Your task to perform on an android device: Go to sound settings Image 0: 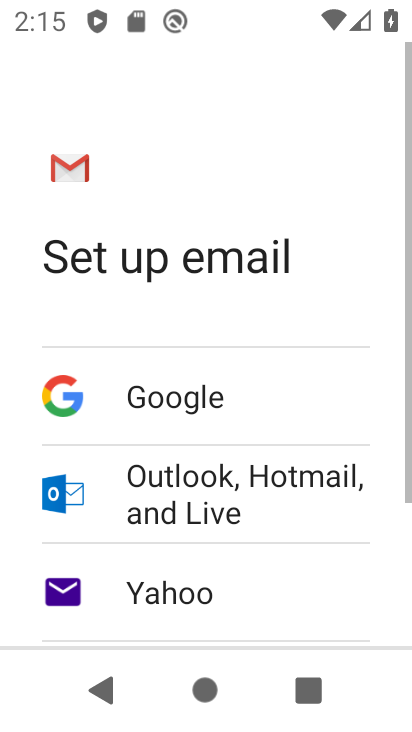
Step 0: press home button
Your task to perform on an android device: Go to sound settings Image 1: 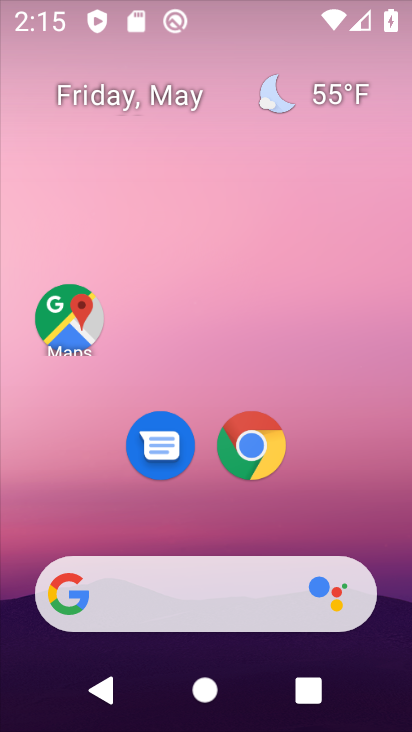
Step 1: drag from (374, 518) to (325, 134)
Your task to perform on an android device: Go to sound settings Image 2: 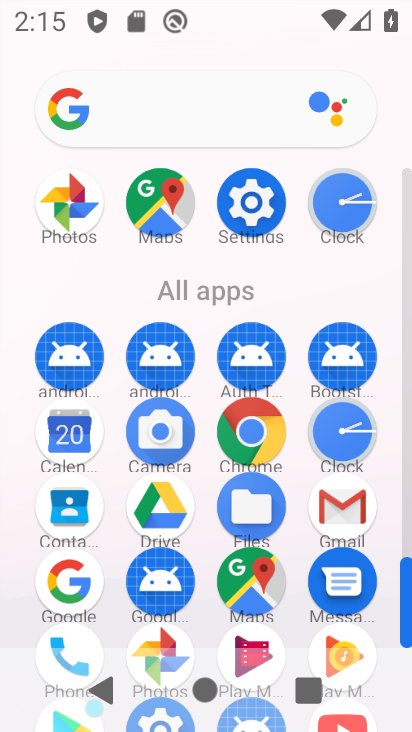
Step 2: click (244, 202)
Your task to perform on an android device: Go to sound settings Image 3: 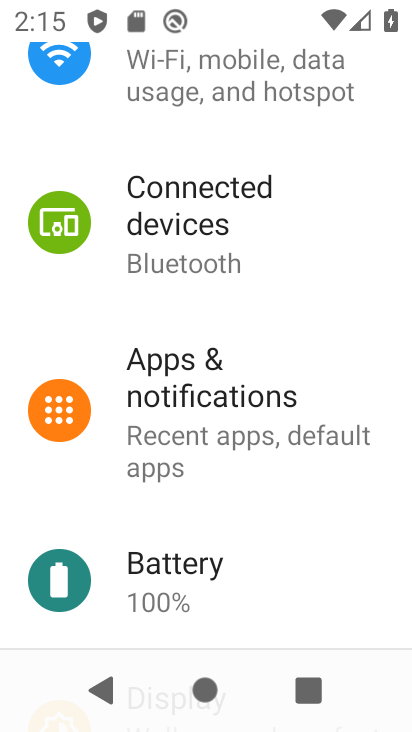
Step 3: drag from (290, 547) to (267, 251)
Your task to perform on an android device: Go to sound settings Image 4: 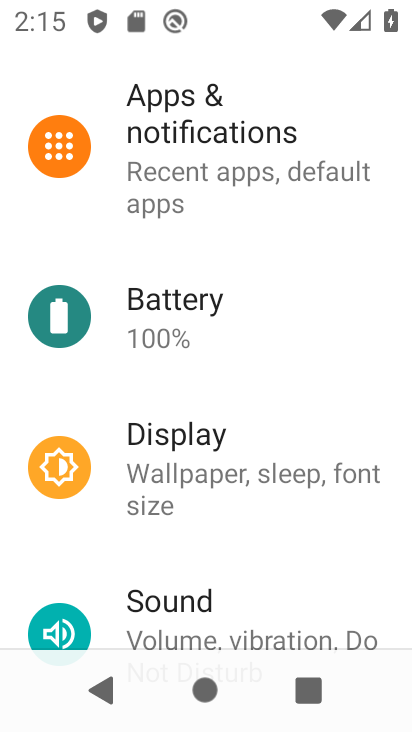
Step 4: click (232, 619)
Your task to perform on an android device: Go to sound settings Image 5: 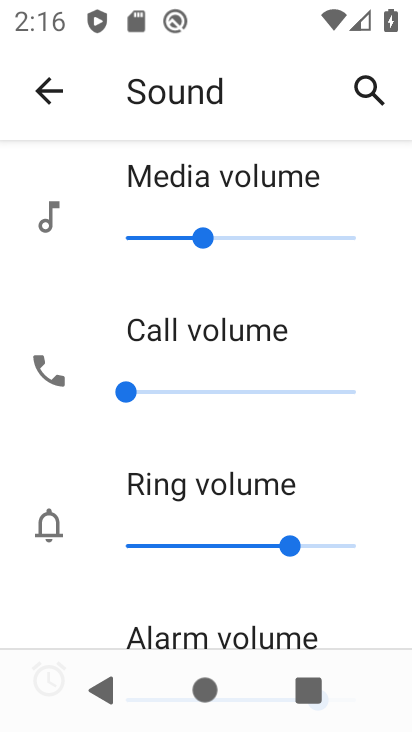
Step 5: task complete